Your task to perform on an android device: move a message to another label in the gmail app Image 0: 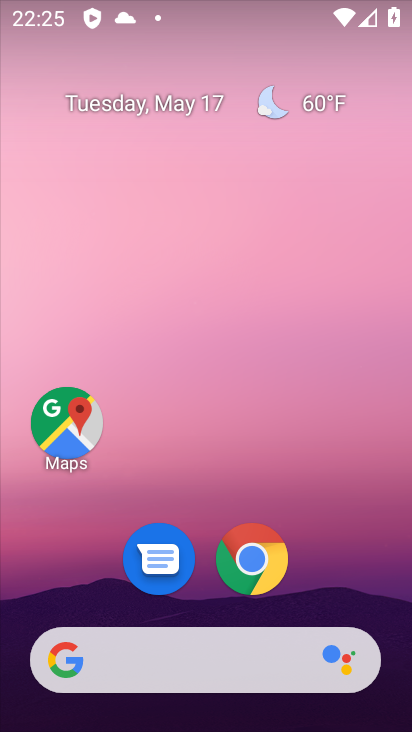
Step 0: drag from (326, 533) to (322, 62)
Your task to perform on an android device: move a message to another label in the gmail app Image 1: 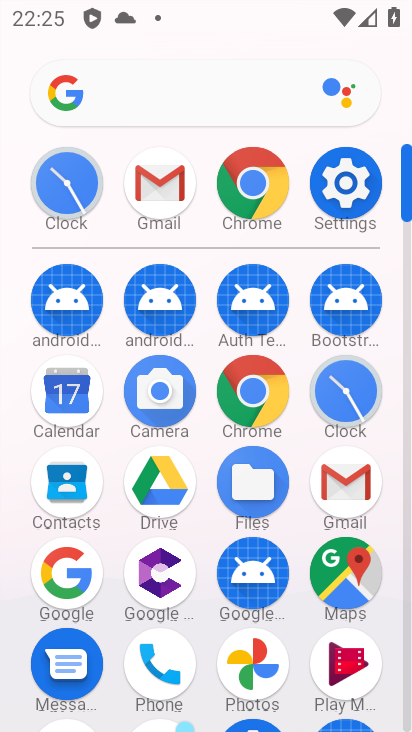
Step 1: click (154, 195)
Your task to perform on an android device: move a message to another label in the gmail app Image 2: 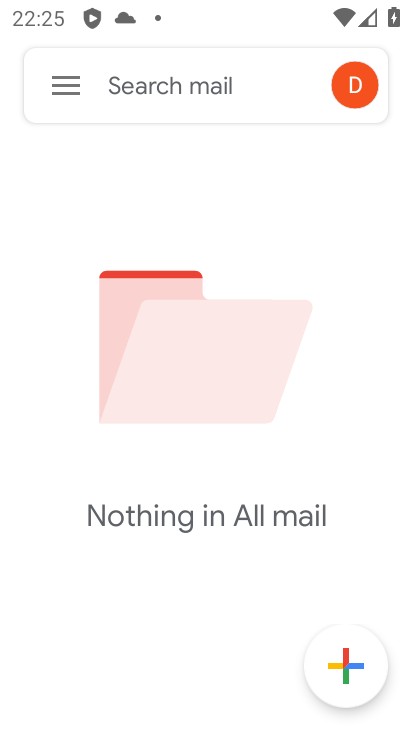
Step 2: click (76, 86)
Your task to perform on an android device: move a message to another label in the gmail app Image 3: 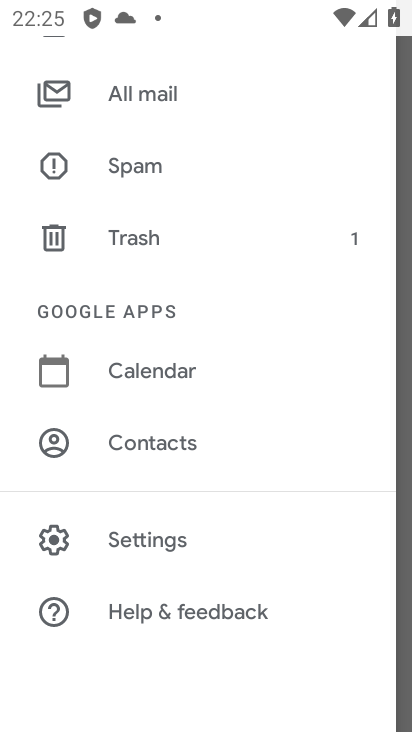
Step 3: drag from (131, 221) to (161, 461)
Your task to perform on an android device: move a message to another label in the gmail app Image 4: 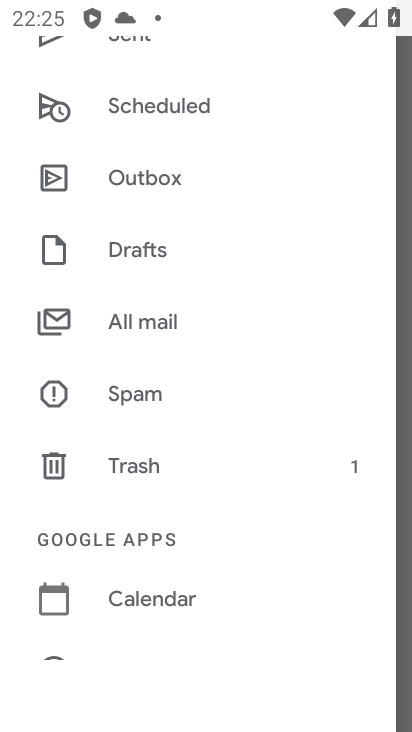
Step 4: click (156, 320)
Your task to perform on an android device: move a message to another label in the gmail app Image 5: 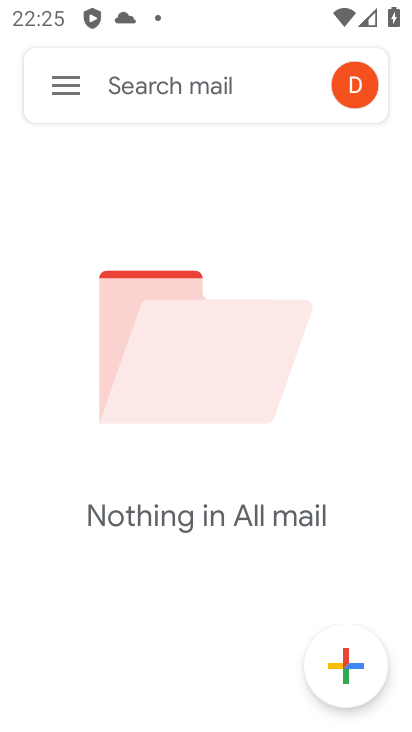
Step 5: task complete